Your task to perform on an android device: Find coffee shops on Maps Image 0: 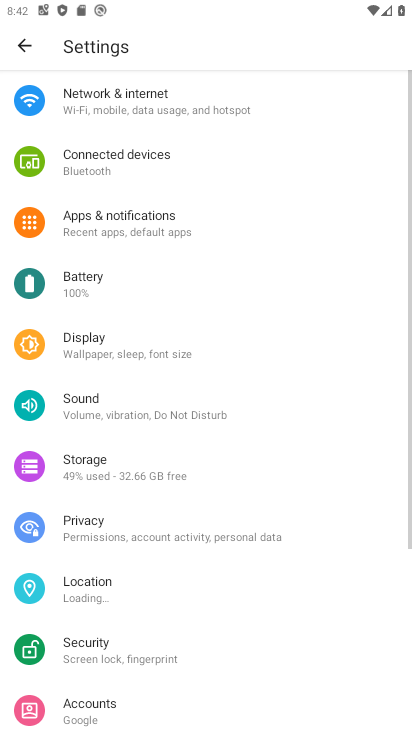
Step 0: press home button
Your task to perform on an android device: Find coffee shops on Maps Image 1: 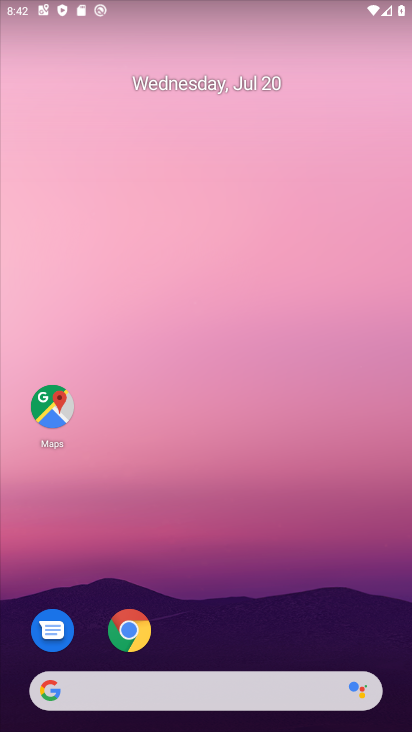
Step 1: click (56, 411)
Your task to perform on an android device: Find coffee shops on Maps Image 2: 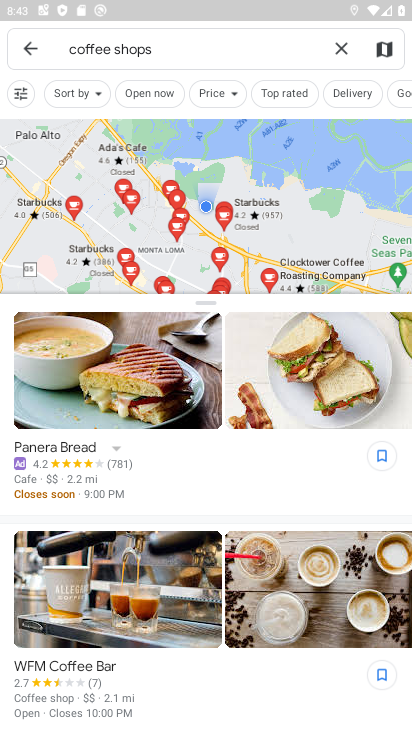
Step 2: task complete